Your task to perform on an android device: Open Android settings Image 0: 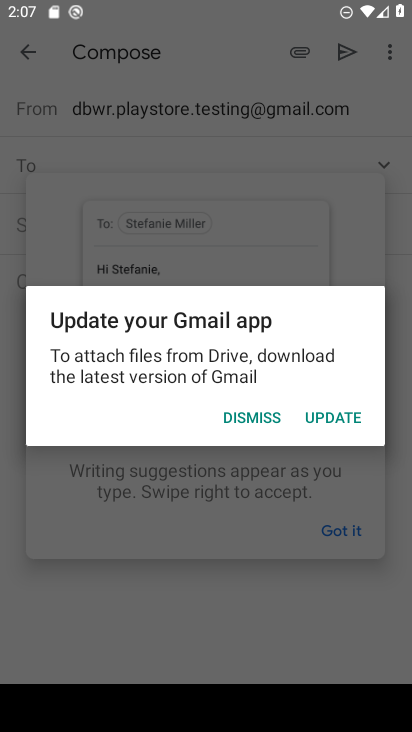
Step 0: press home button
Your task to perform on an android device: Open Android settings Image 1: 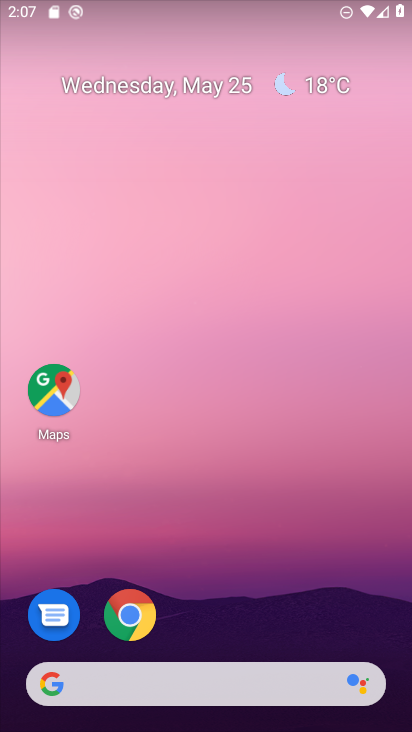
Step 1: drag from (237, 592) to (265, 16)
Your task to perform on an android device: Open Android settings Image 2: 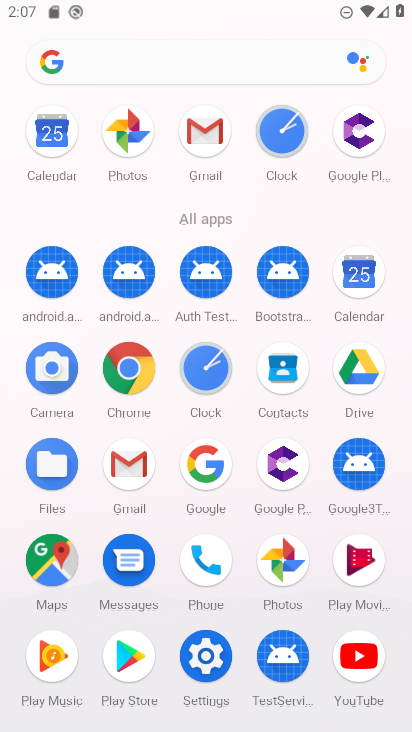
Step 2: click (202, 645)
Your task to perform on an android device: Open Android settings Image 3: 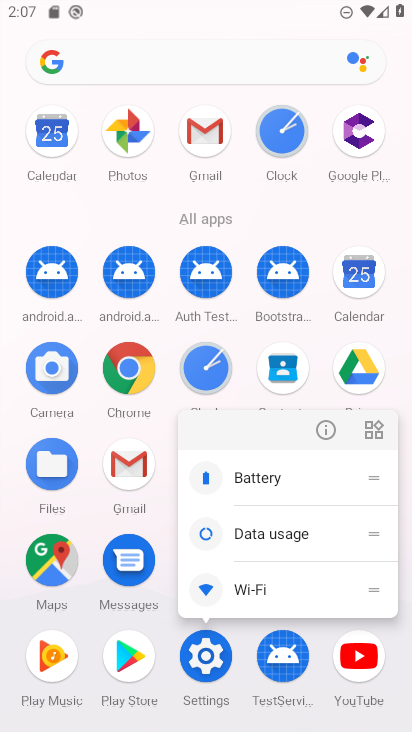
Step 3: click (202, 644)
Your task to perform on an android device: Open Android settings Image 4: 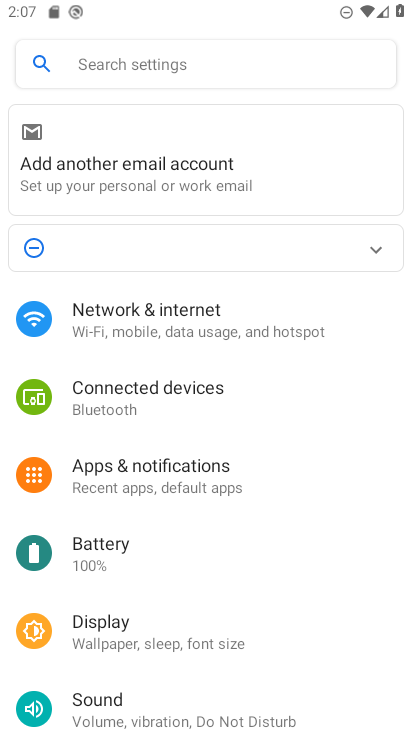
Step 4: drag from (267, 543) to (316, 1)
Your task to perform on an android device: Open Android settings Image 5: 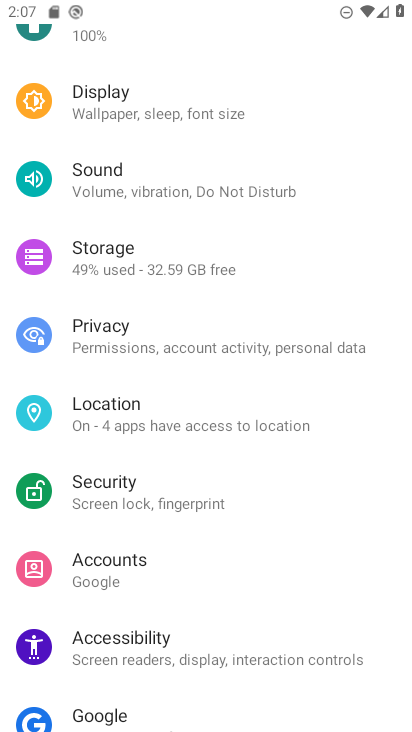
Step 5: drag from (275, 568) to (297, 165)
Your task to perform on an android device: Open Android settings Image 6: 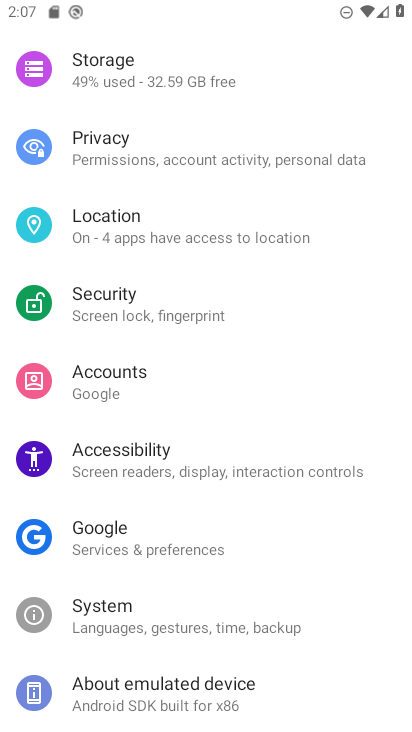
Step 6: click (212, 690)
Your task to perform on an android device: Open Android settings Image 7: 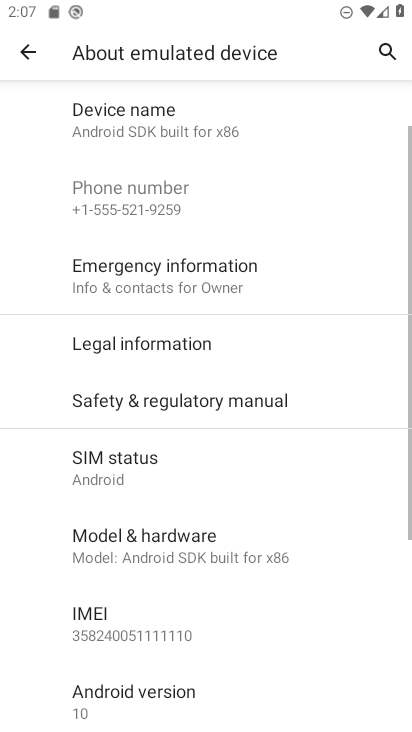
Step 7: task complete